Your task to perform on an android device: create a new album in the google photos Image 0: 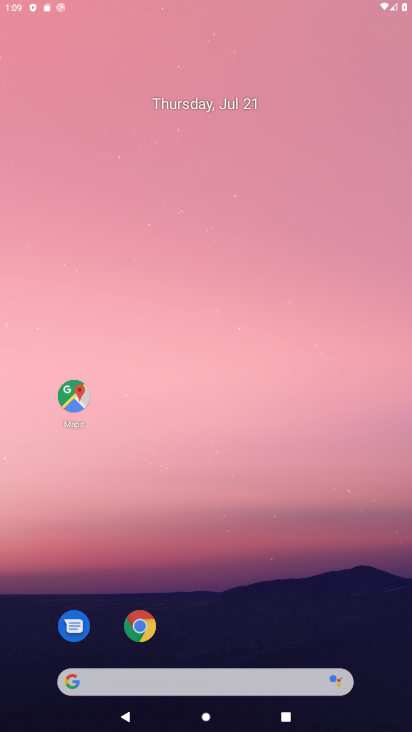
Step 0: press home button
Your task to perform on an android device: create a new album in the google photos Image 1: 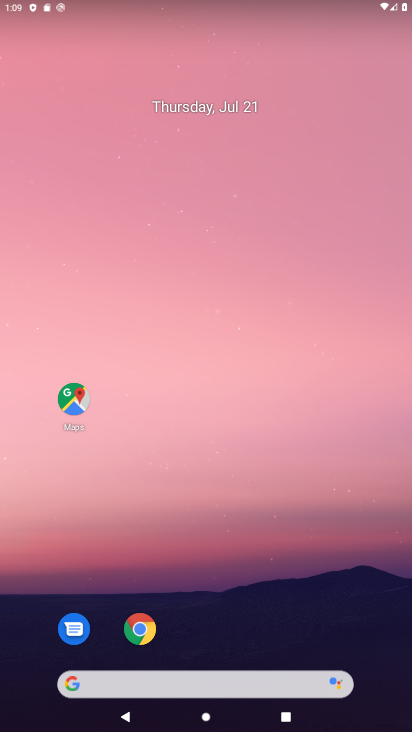
Step 1: drag from (190, 373) to (312, 106)
Your task to perform on an android device: create a new album in the google photos Image 2: 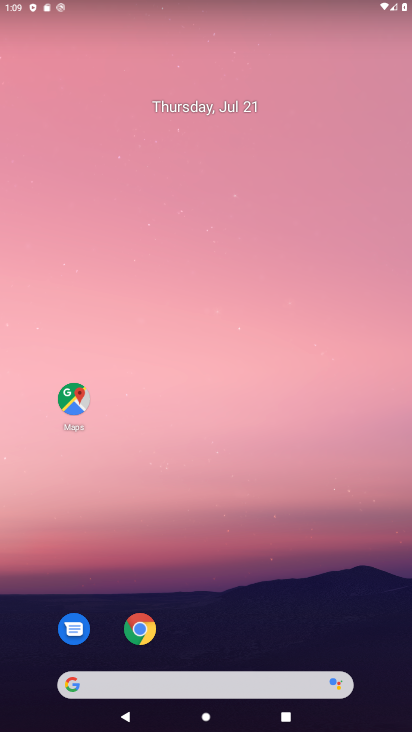
Step 2: drag from (88, 472) to (261, 125)
Your task to perform on an android device: create a new album in the google photos Image 3: 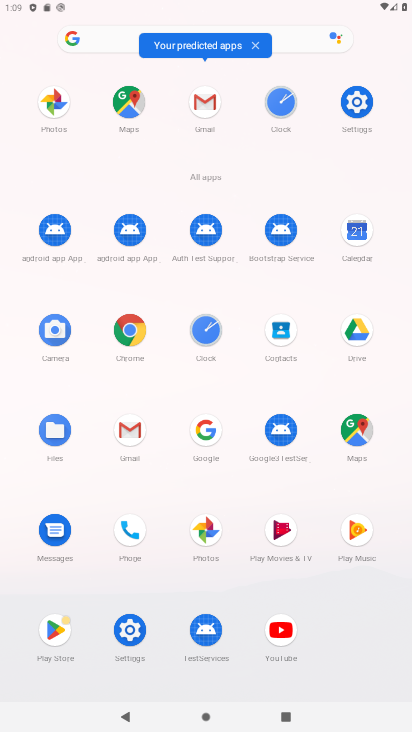
Step 3: click (206, 541)
Your task to perform on an android device: create a new album in the google photos Image 4: 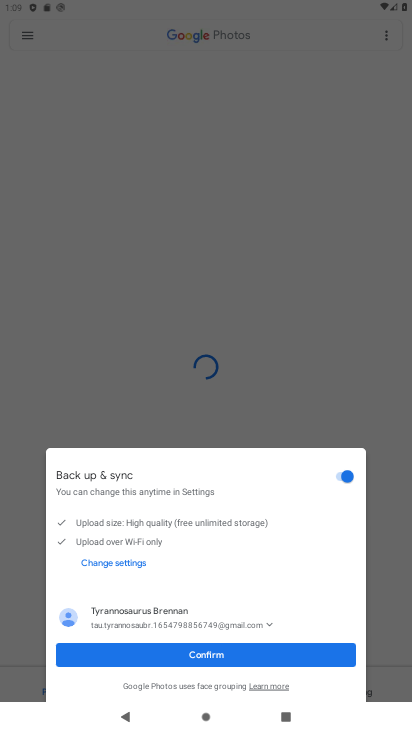
Step 4: click (173, 655)
Your task to perform on an android device: create a new album in the google photos Image 5: 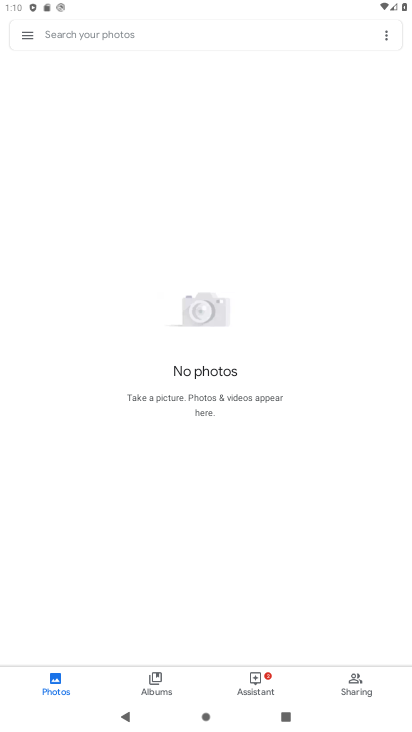
Step 5: click (143, 689)
Your task to perform on an android device: create a new album in the google photos Image 6: 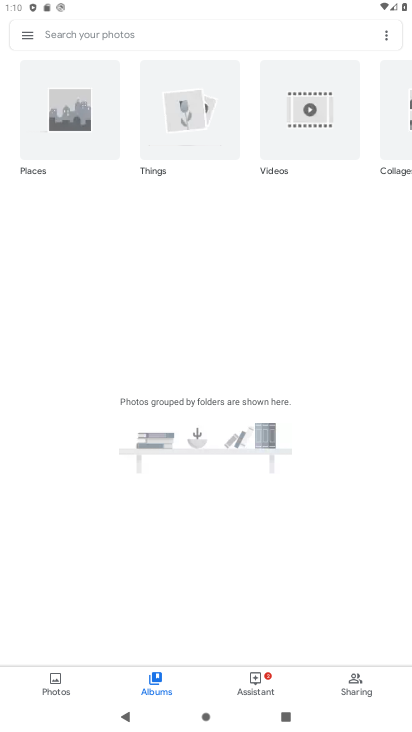
Step 6: task complete